Your task to perform on an android device: When is my next appointment? Image 0: 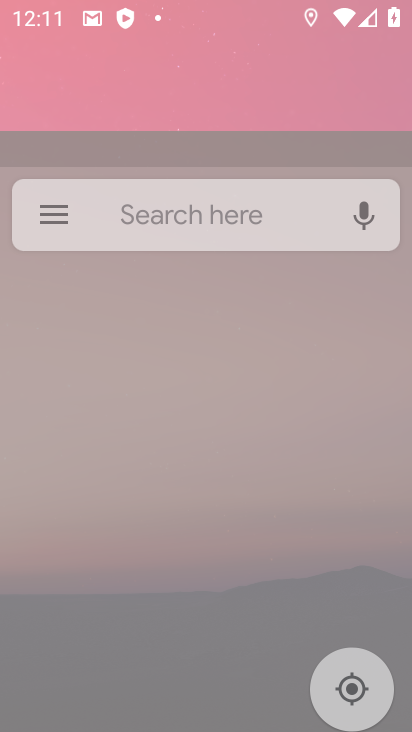
Step 0: press home button
Your task to perform on an android device: When is my next appointment? Image 1: 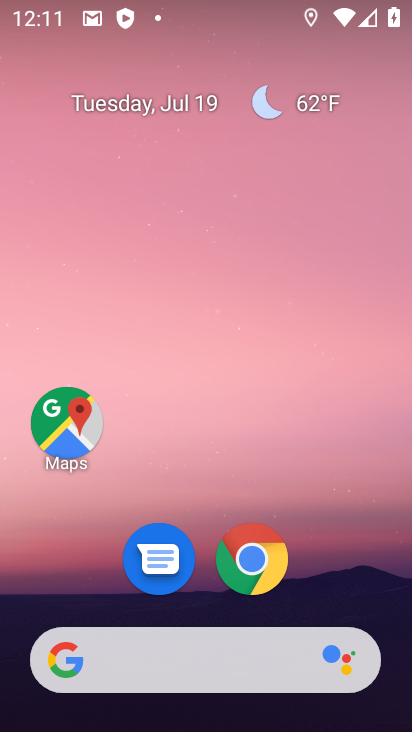
Step 1: drag from (220, 644) to (250, 231)
Your task to perform on an android device: When is my next appointment? Image 2: 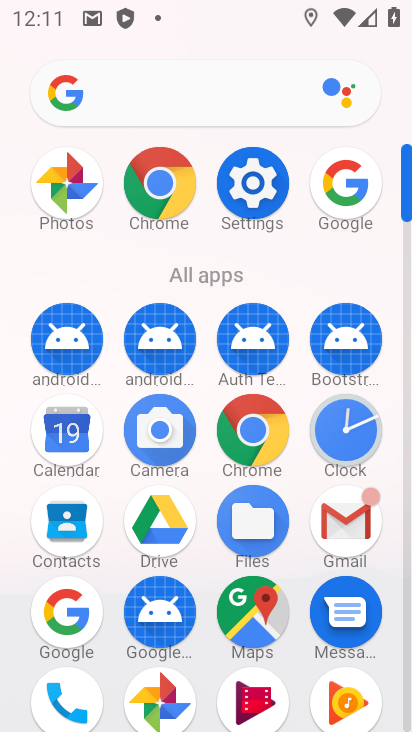
Step 2: drag from (167, 552) to (226, 120)
Your task to perform on an android device: When is my next appointment? Image 3: 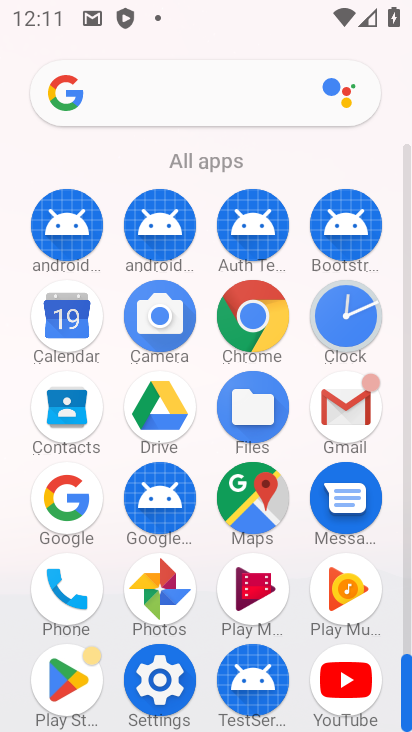
Step 3: drag from (231, 447) to (256, 249)
Your task to perform on an android device: When is my next appointment? Image 4: 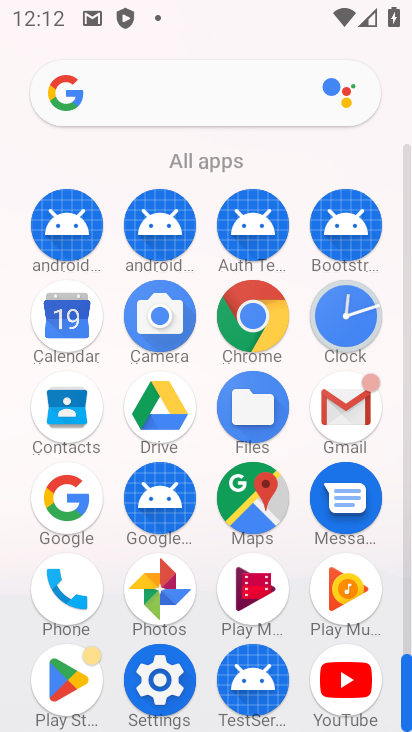
Step 4: click (70, 313)
Your task to perform on an android device: When is my next appointment? Image 5: 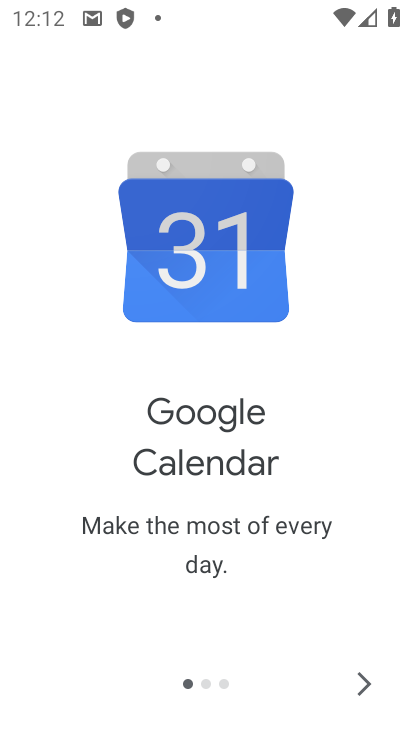
Step 5: click (374, 683)
Your task to perform on an android device: When is my next appointment? Image 6: 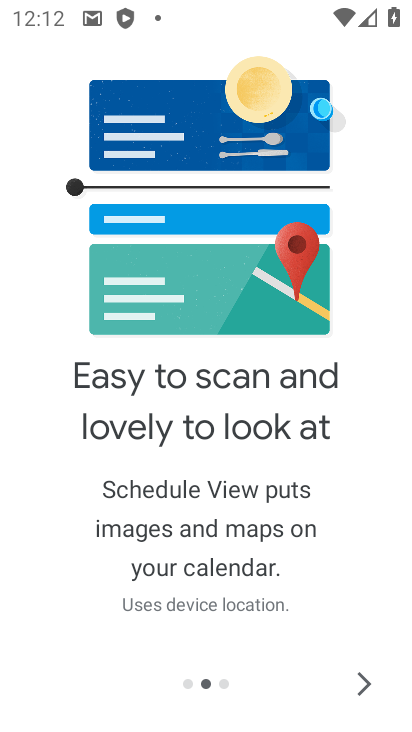
Step 6: click (359, 685)
Your task to perform on an android device: When is my next appointment? Image 7: 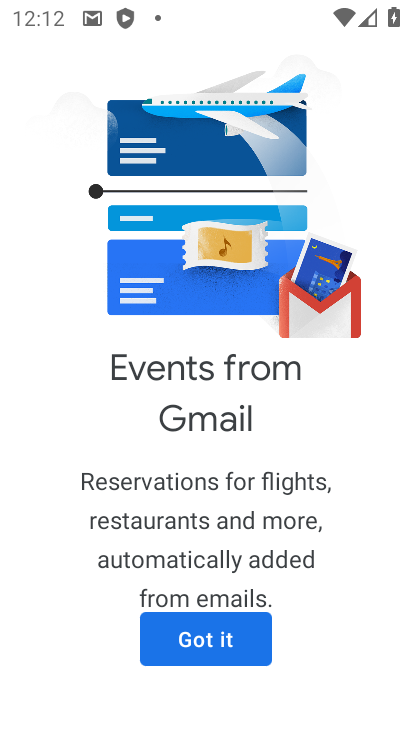
Step 7: click (230, 654)
Your task to perform on an android device: When is my next appointment? Image 8: 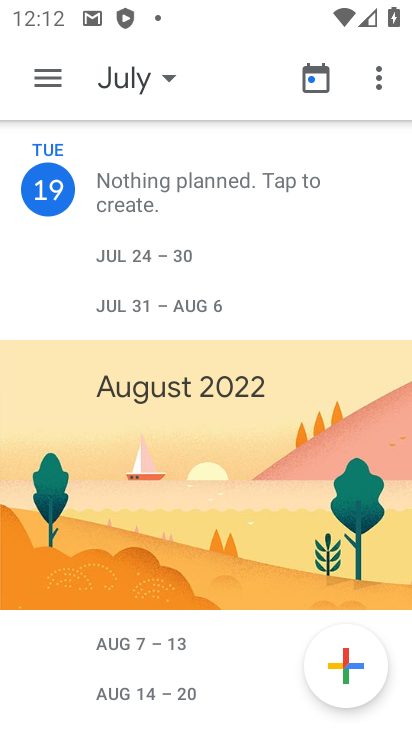
Step 8: click (53, 81)
Your task to perform on an android device: When is my next appointment? Image 9: 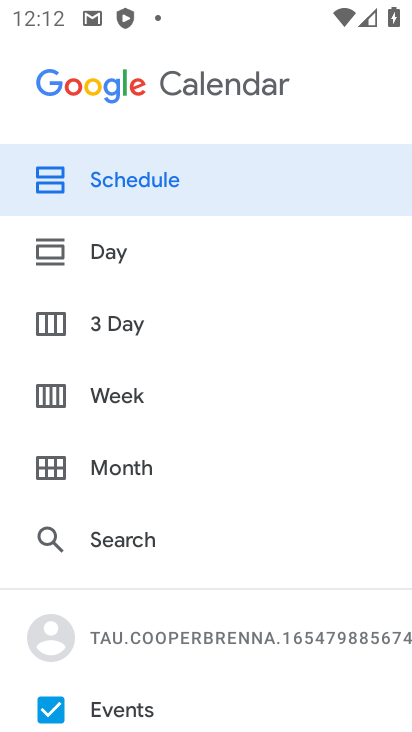
Step 9: drag from (191, 550) to (218, 63)
Your task to perform on an android device: When is my next appointment? Image 10: 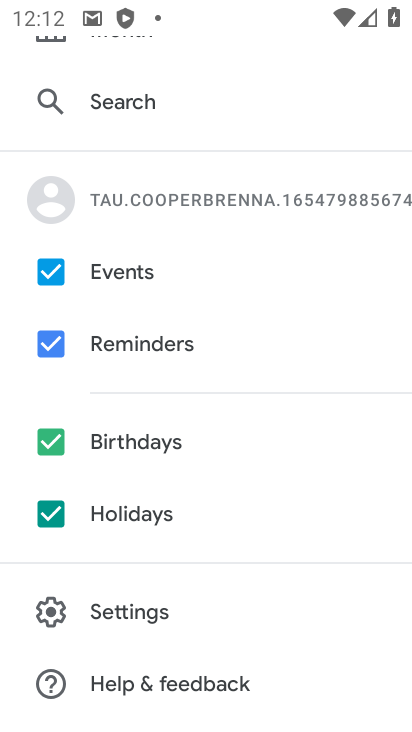
Step 10: click (66, 504)
Your task to perform on an android device: When is my next appointment? Image 11: 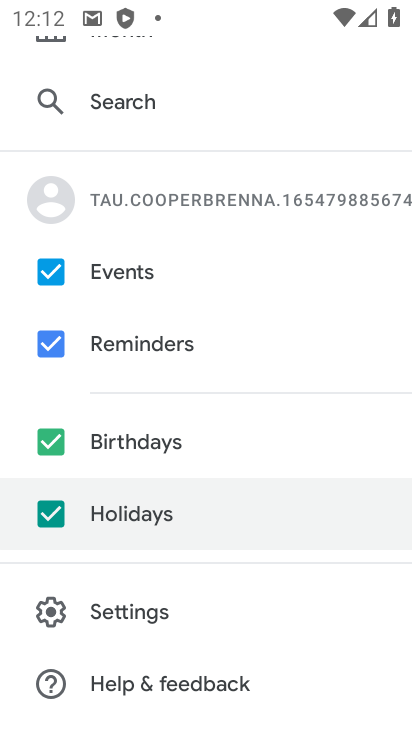
Step 11: click (61, 424)
Your task to perform on an android device: When is my next appointment? Image 12: 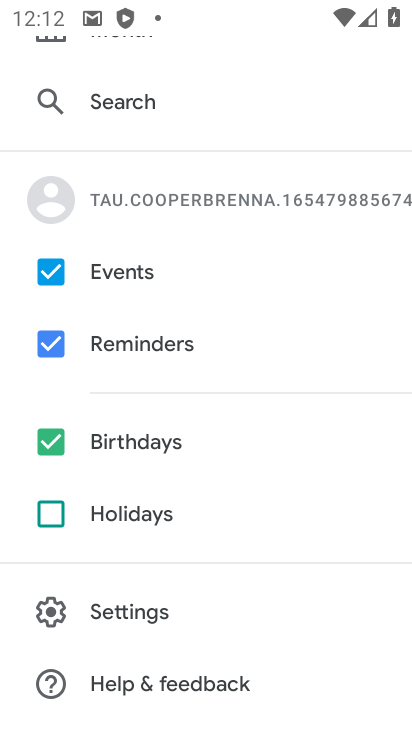
Step 12: click (55, 444)
Your task to perform on an android device: When is my next appointment? Image 13: 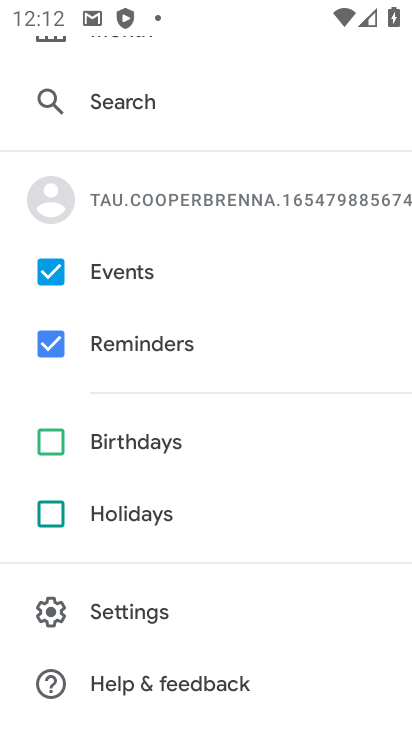
Step 13: task complete